Your task to perform on an android device: turn off airplane mode Image 0: 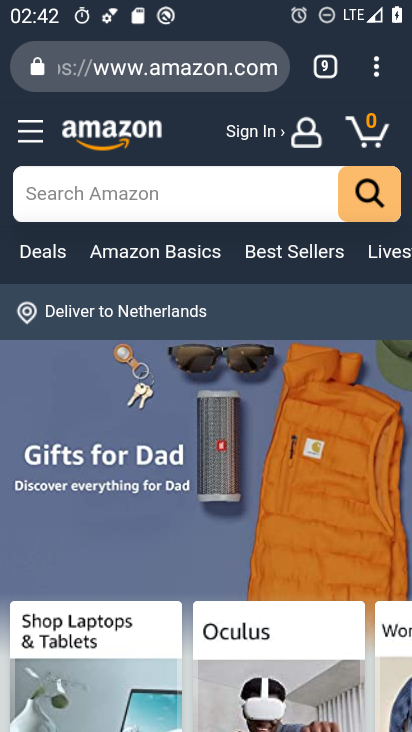
Step 0: click (281, 594)
Your task to perform on an android device: turn off airplane mode Image 1: 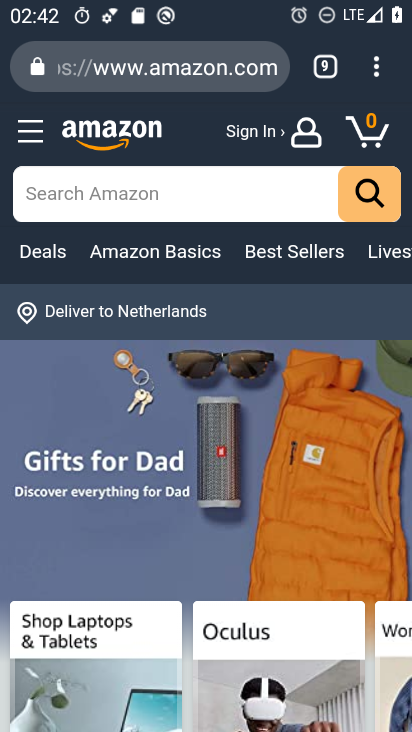
Step 1: press home button
Your task to perform on an android device: turn off airplane mode Image 2: 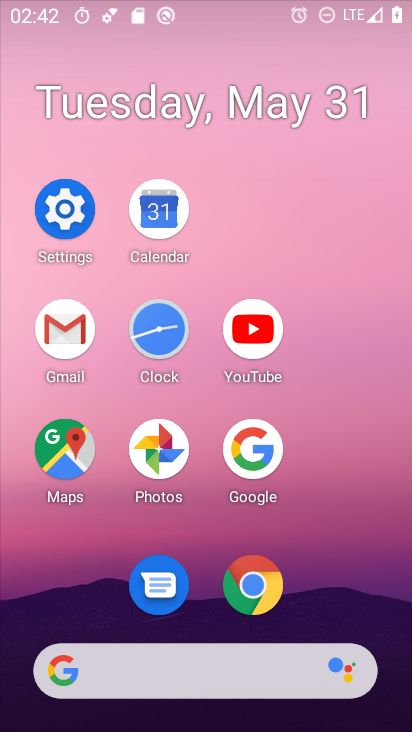
Step 2: click (99, 229)
Your task to perform on an android device: turn off airplane mode Image 3: 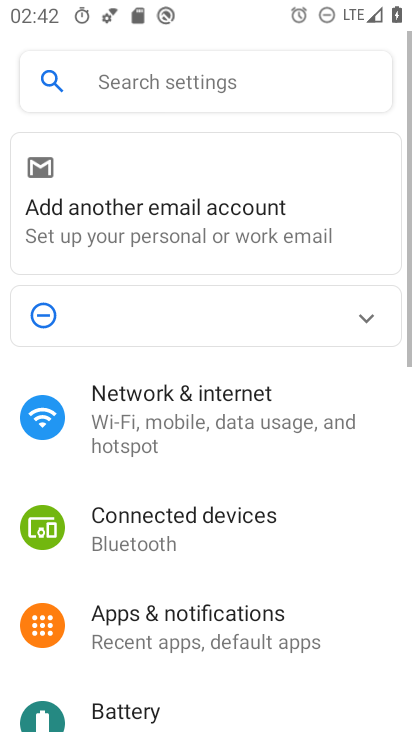
Step 3: click (176, 285)
Your task to perform on an android device: turn off airplane mode Image 4: 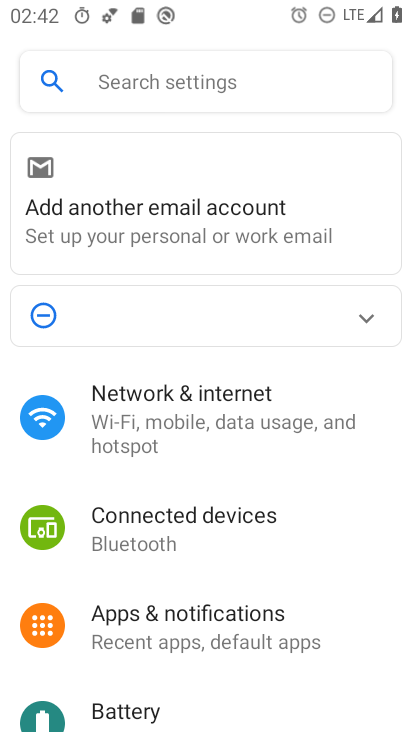
Step 4: click (255, 408)
Your task to perform on an android device: turn off airplane mode Image 5: 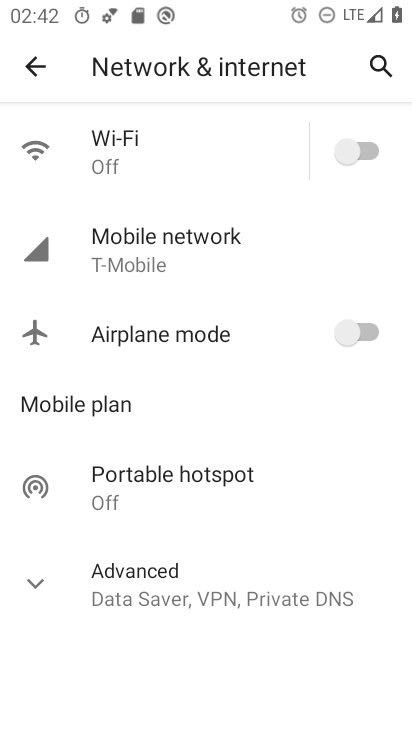
Step 5: task complete